Your task to perform on an android device: Toggle the flashlight Image 0: 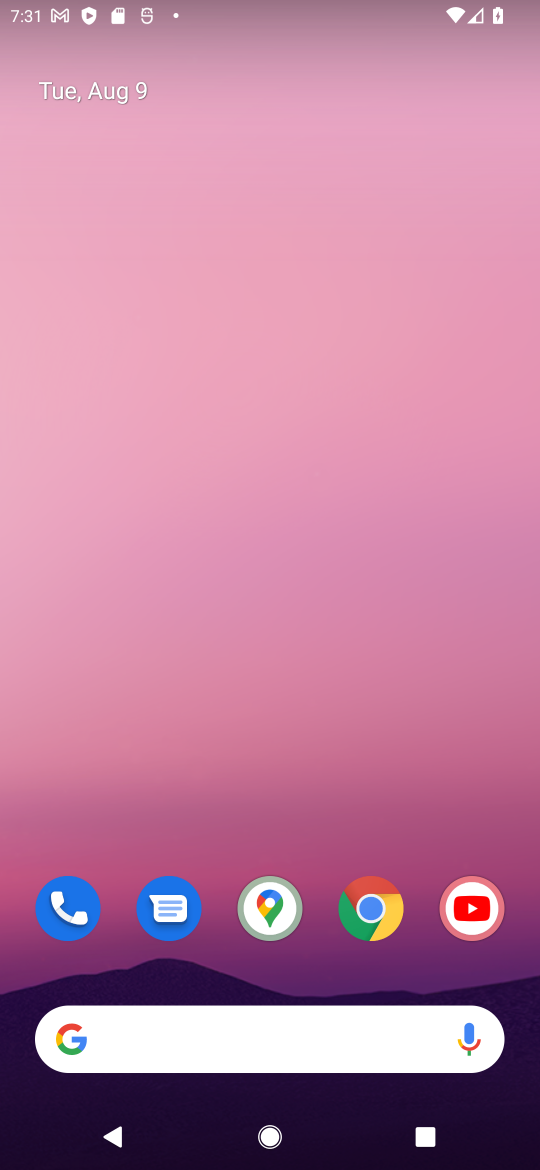
Step 0: drag from (325, 730) to (323, 189)
Your task to perform on an android device: Toggle the flashlight Image 1: 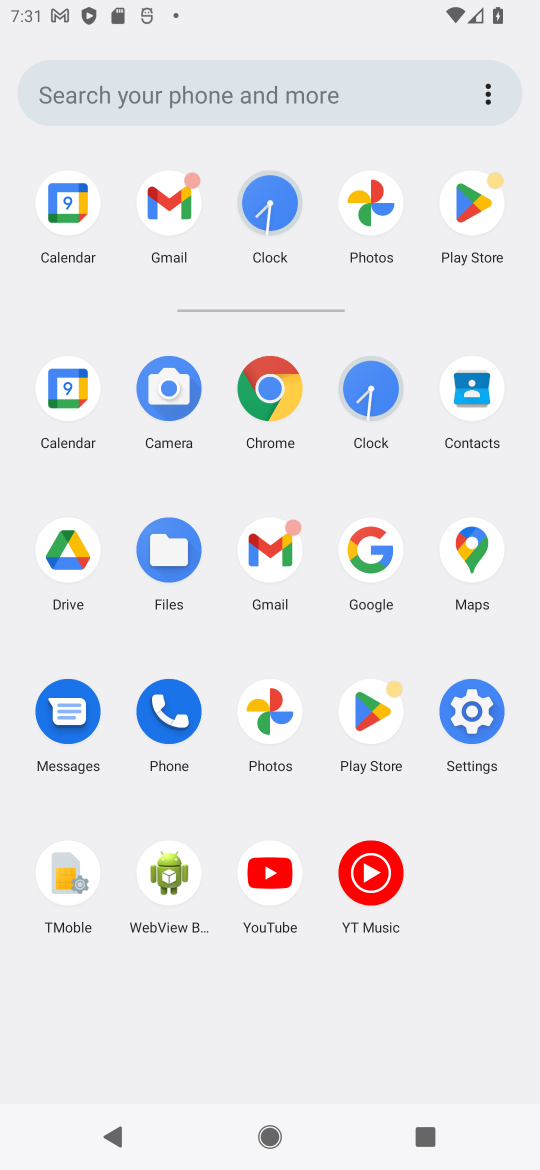
Step 1: click (475, 701)
Your task to perform on an android device: Toggle the flashlight Image 2: 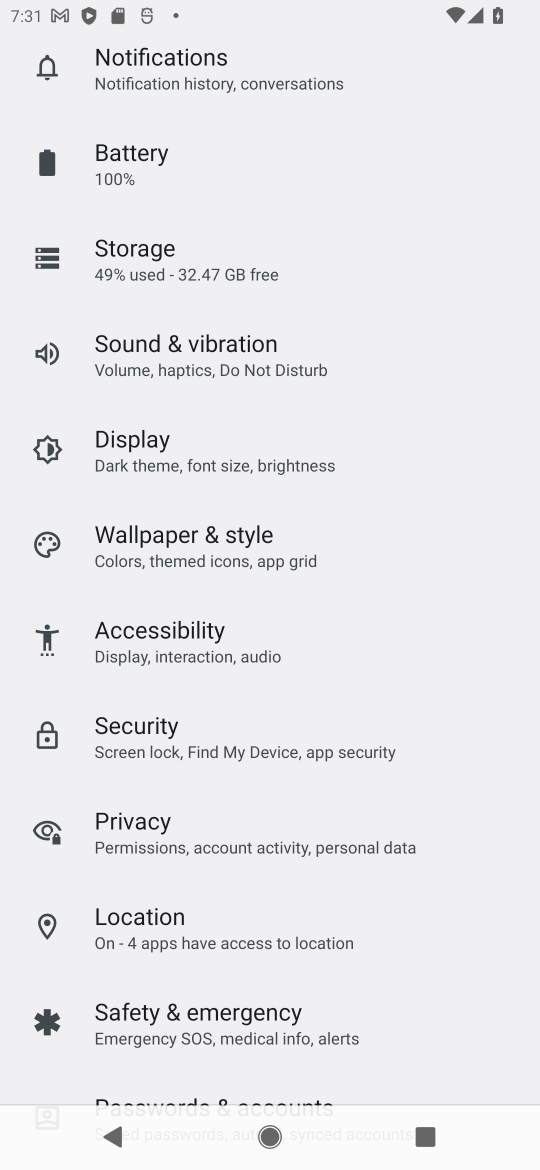
Step 2: task complete